Your task to perform on an android device: toggle pop-ups in chrome Image 0: 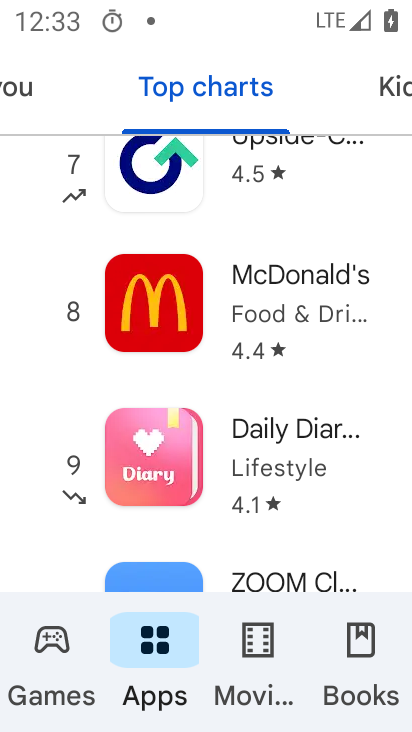
Step 0: press home button
Your task to perform on an android device: toggle pop-ups in chrome Image 1: 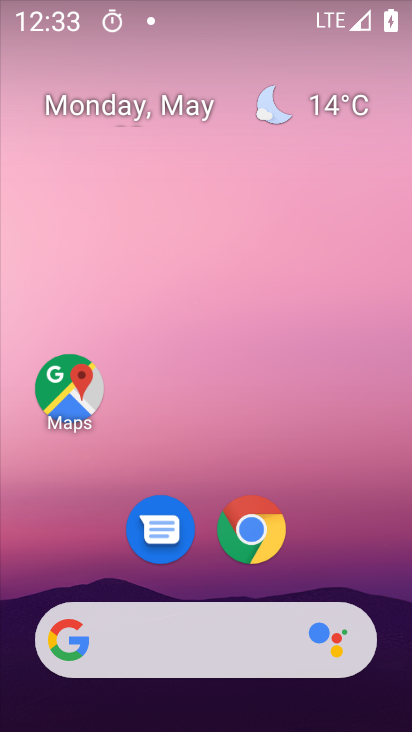
Step 1: drag from (387, 598) to (367, 149)
Your task to perform on an android device: toggle pop-ups in chrome Image 2: 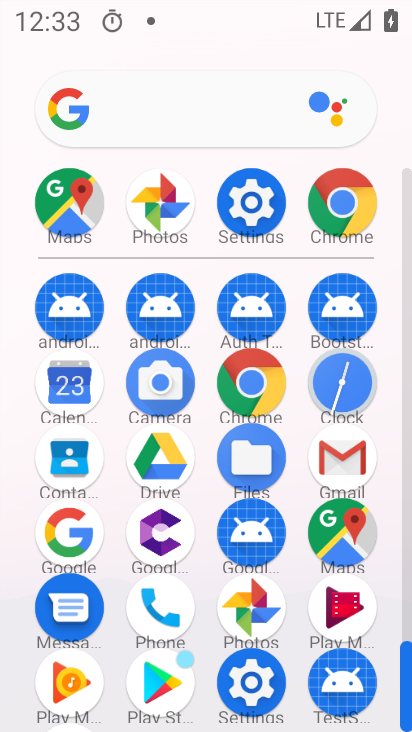
Step 2: click (268, 396)
Your task to perform on an android device: toggle pop-ups in chrome Image 3: 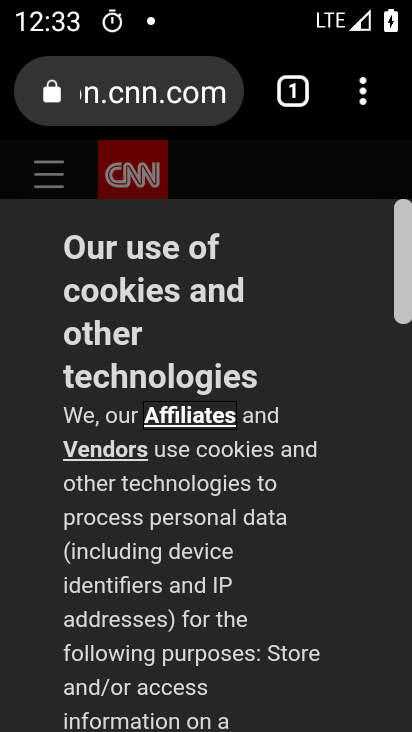
Step 3: click (365, 111)
Your task to perform on an android device: toggle pop-ups in chrome Image 4: 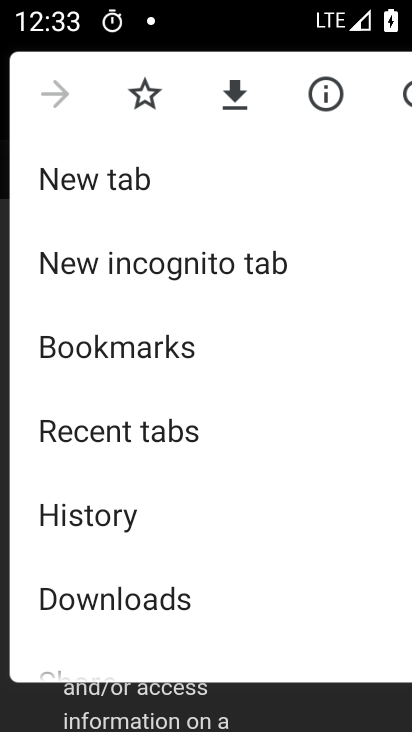
Step 4: drag from (351, 570) to (368, 466)
Your task to perform on an android device: toggle pop-ups in chrome Image 5: 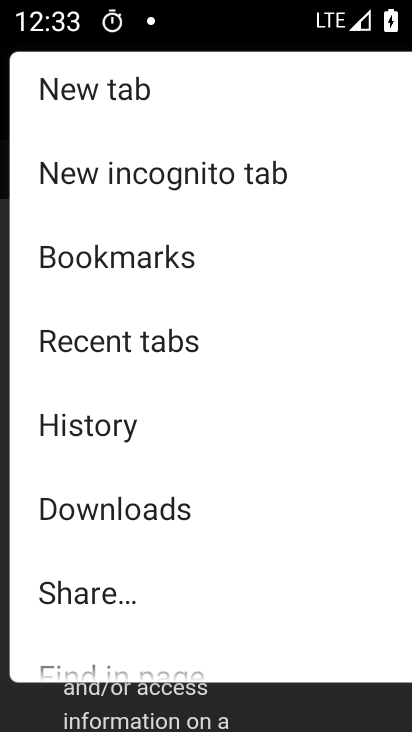
Step 5: drag from (341, 588) to (343, 459)
Your task to perform on an android device: toggle pop-ups in chrome Image 6: 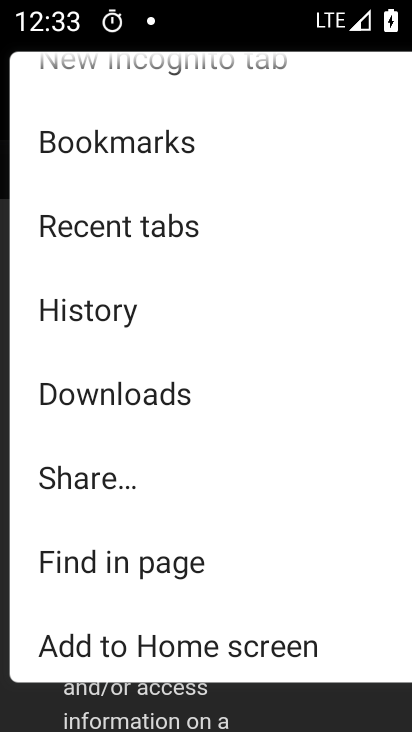
Step 6: drag from (324, 603) to (326, 464)
Your task to perform on an android device: toggle pop-ups in chrome Image 7: 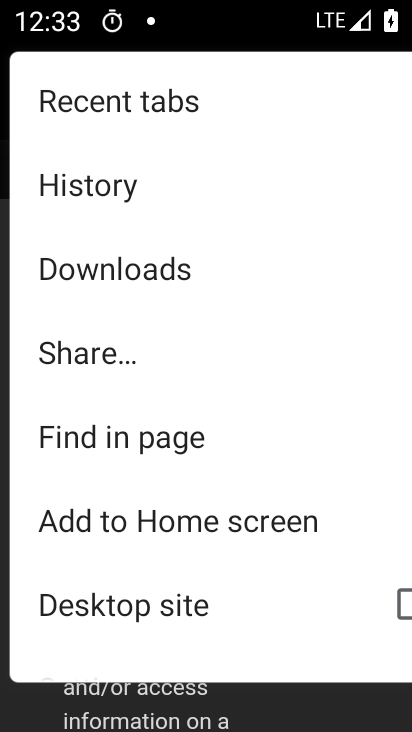
Step 7: drag from (308, 609) to (324, 445)
Your task to perform on an android device: toggle pop-ups in chrome Image 8: 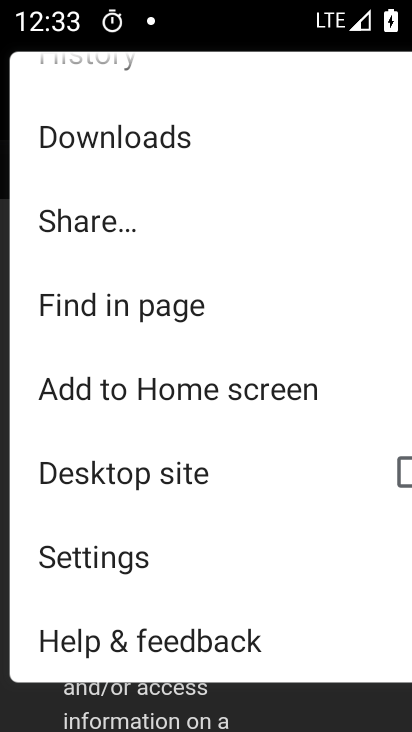
Step 8: click (230, 561)
Your task to perform on an android device: toggle pop-ups in chrome Image 9: 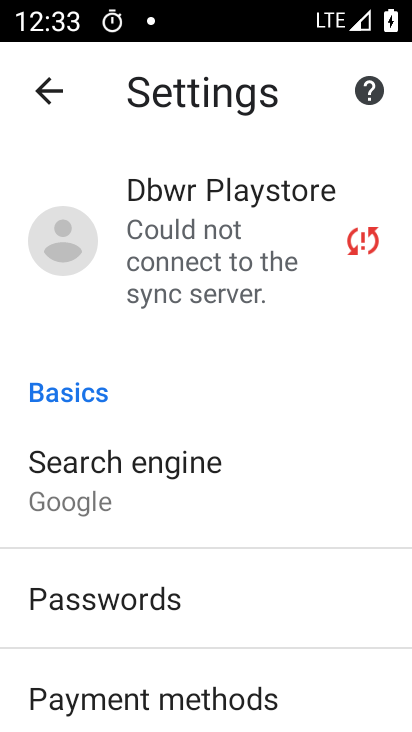
Step 9: drag from (306, 618) to (311, 508)
Your task to perform on an android device: toggle pop-ups in chrome Image 10: 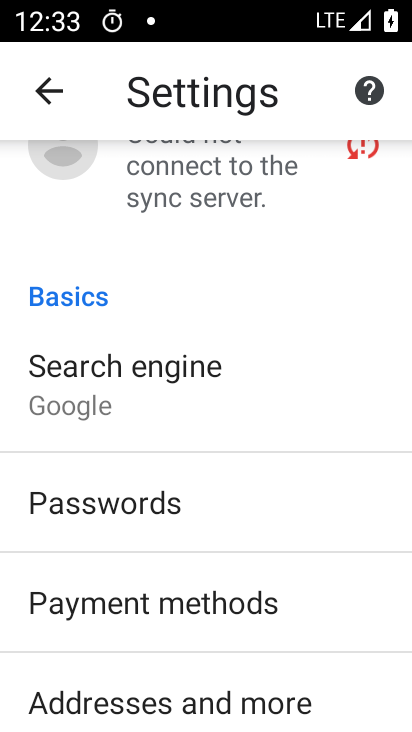
Step 10: drag from (324, 646) to (335, 522)
Your task to perform on an android device: toggle pop-ups in chrome Image 11: 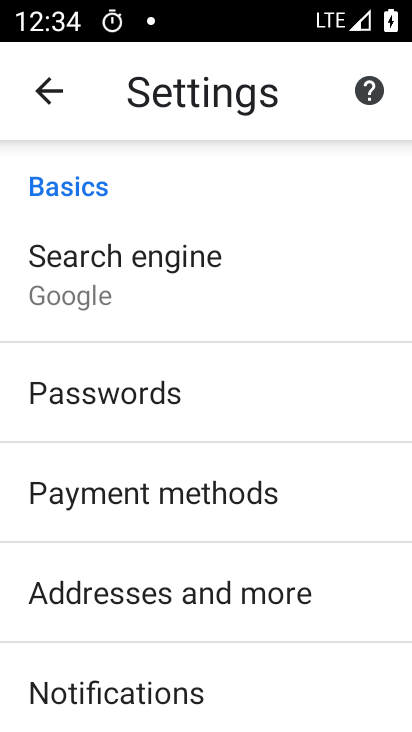
Step 11: drag from (347, 653) to (357, 546)
Your task to perform on an android device: toggle pop-ups in chrome Image 12: 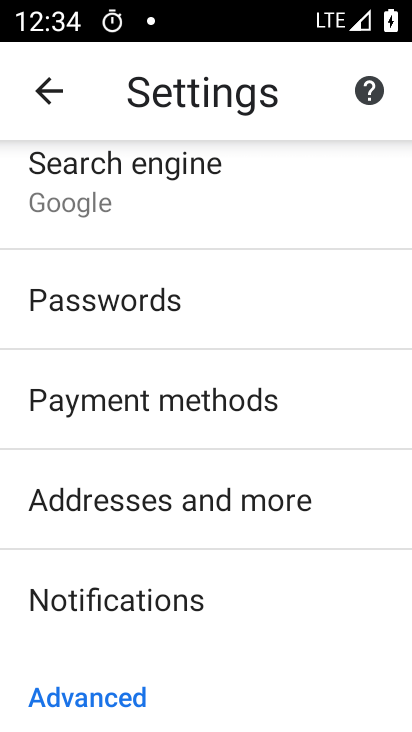
Step 12: drag from (342, 668) to (345, 570)
Your task to perform on an android device: toggle pop-ups in chrome Image 13: 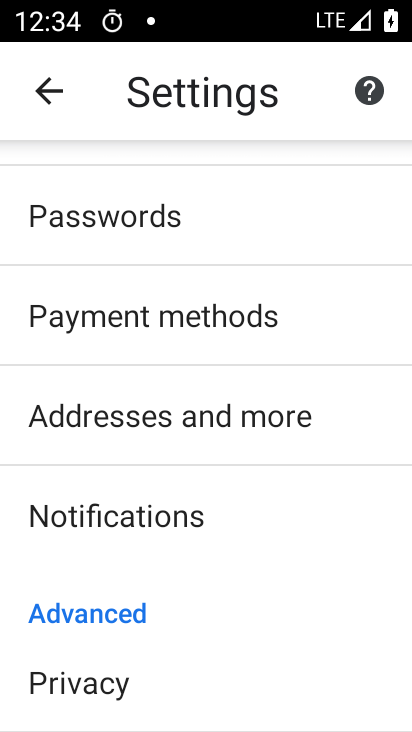
Step 13: drag from (352, 647) to (357, 541)
Your task to perform on an android device: toggle pop-ups in chrome Image 14: 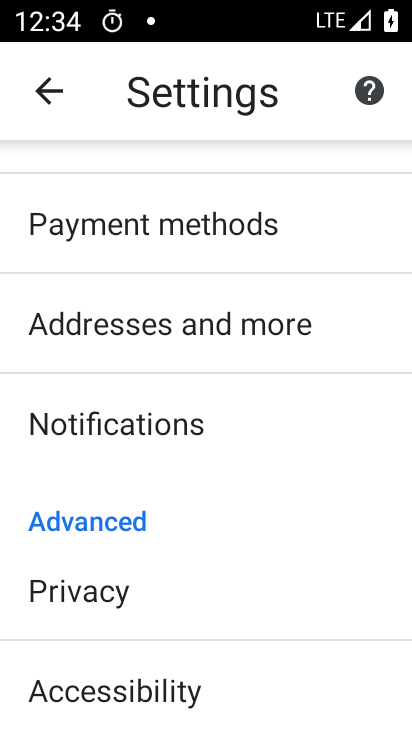
Step 14: drag from (350, 672) to (355, 539)
Your task to perform on an android device: toggle pop-ups in chrome Image 15: 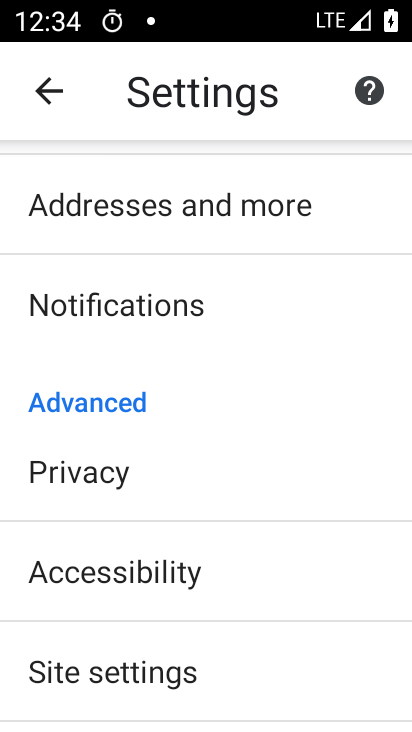
Step 15: drag from (341, 684) to (343, 548)
Your task to perform on an android device: toggle pop-ups in chrome Image 16: 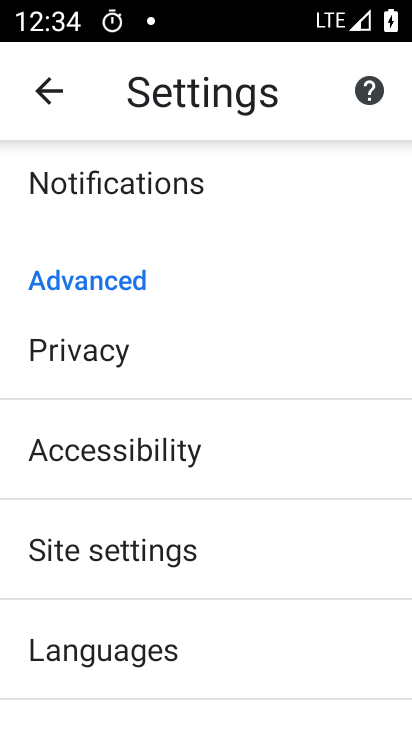
Step 16: click (283, 558)
Your task to perform on an android device: toggle pop-ups in chrome Image 17: 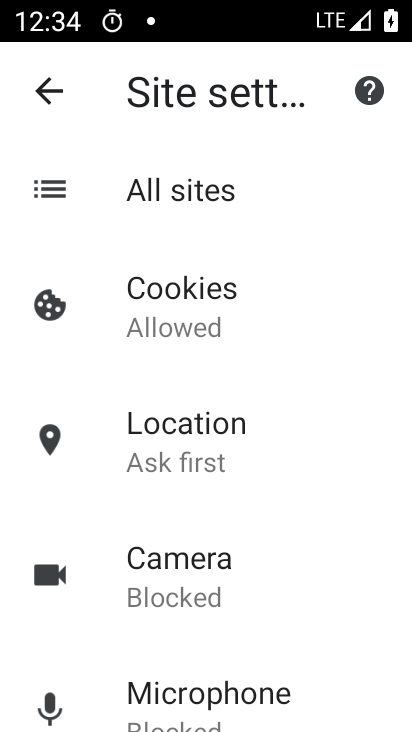
Step 17: drag from (297, 618) to (302, 480)
Your task to perform on an android device: toggle pop-ups in chrome Image 18: 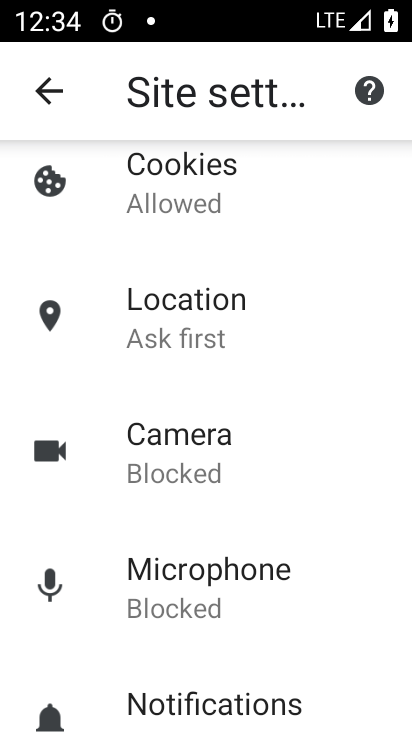
Step 18: drag from (327, 638) to (327, 472)
Your task to perform on an android device: toggle pop-ups in chrome Image 19: 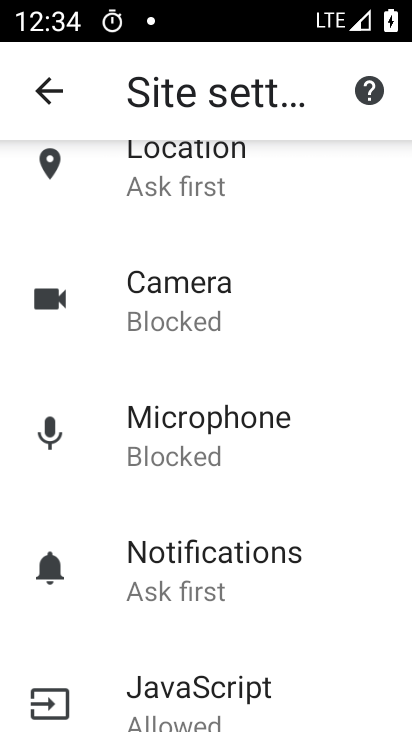
Step 19: drag from (340, 638) to (342, 482)
Your task to perform on an android device: toggle pop-ups in chrome Image 20: 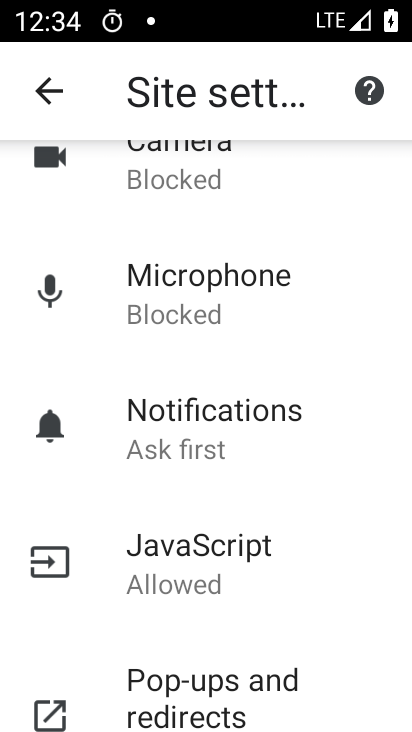
Step 20: drag from (336, 622) to (337, 478)
Your task to perform on an android device: toggle pop-ups in chrome Image 21: 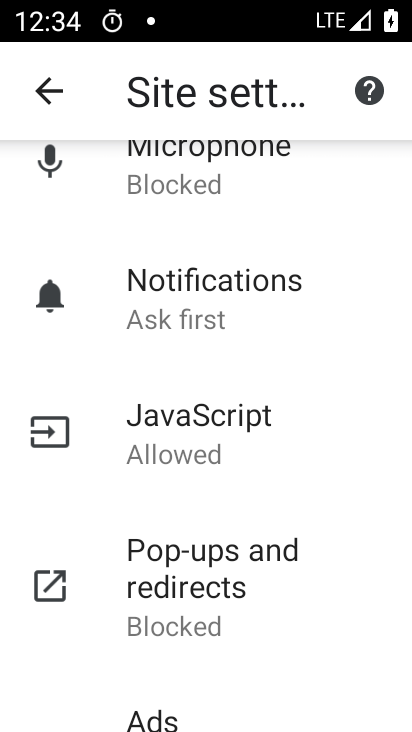
Step 21: click (240, 578)
Your task to perform on an android device: toggle pop-ups in chrome Image 22: 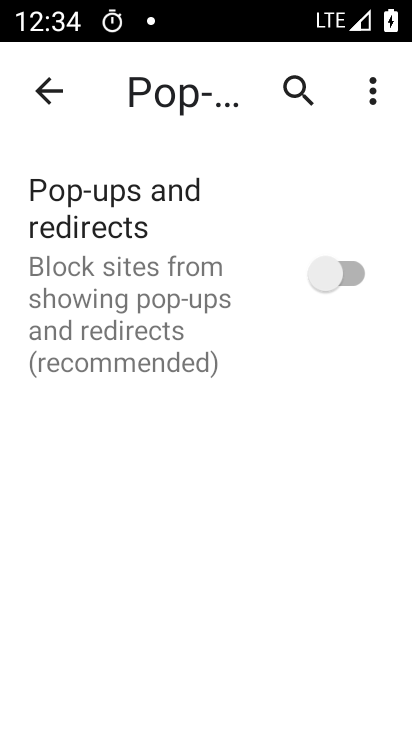
Step 22: click (330, 282)
Your task to perform on an android device: toggle pop-ups in chrome Image 23: 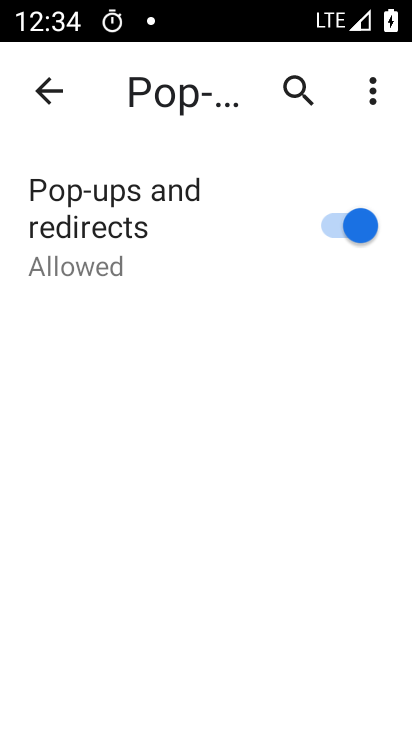
Step 23: task complete